Your task to perform on an android device: see creations saved in the google photos Image 0: 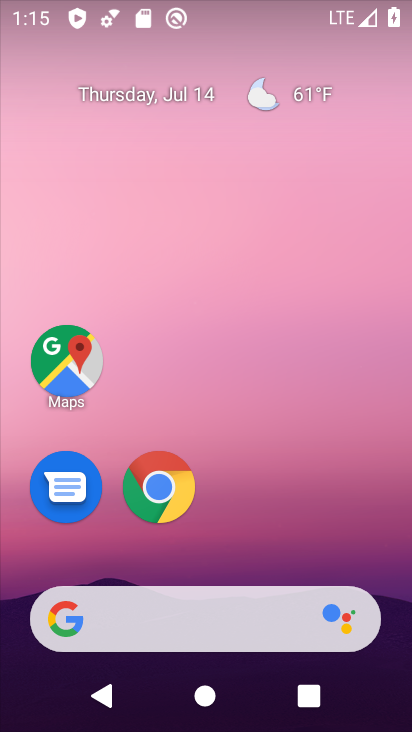
Step 0: drag from (324, 518) to (367, 173)
Your task to perform on an android device: see creations saved in the google photos Image 1: 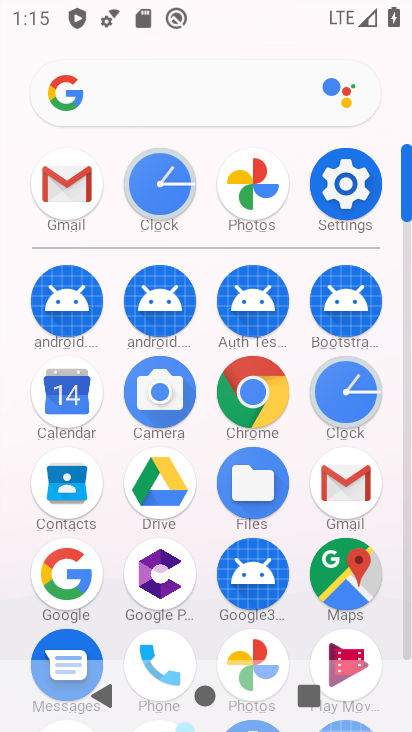
Step 1: click (269, 197)
Your task to perform on an android device: see creations saved in the google photos Image 2: 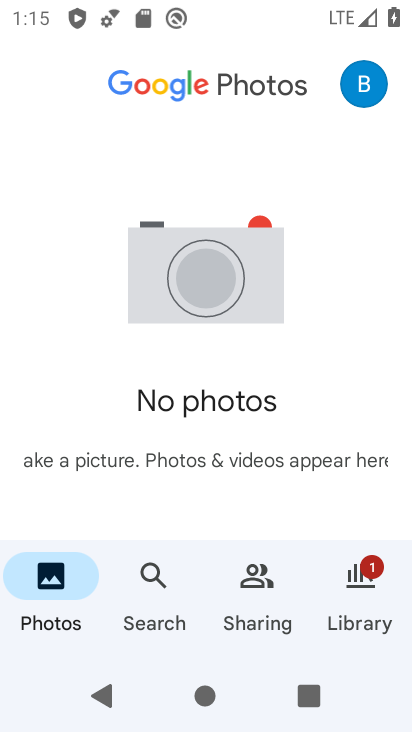
Step 2: click (152, 567)
Your task to perform on an android device: see creations saved in the google photos Image 3: 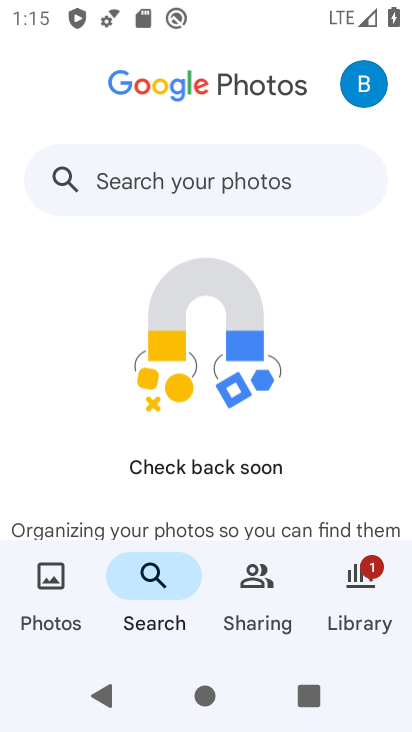
Step 3: drag from (353, 448) to (355, 339)
Your task to perform on an android device: see creations saved in the google photos Image 4: 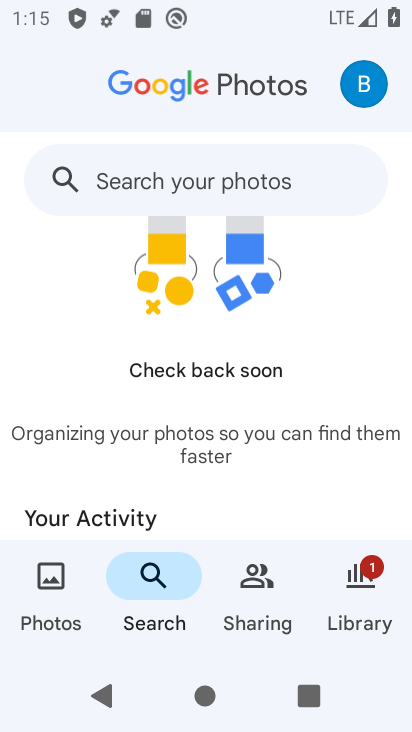
Step 4: drag from (337, 458) to (334, 324)
Your task to perform on an android device: see creations saved in the google photos Image 5: 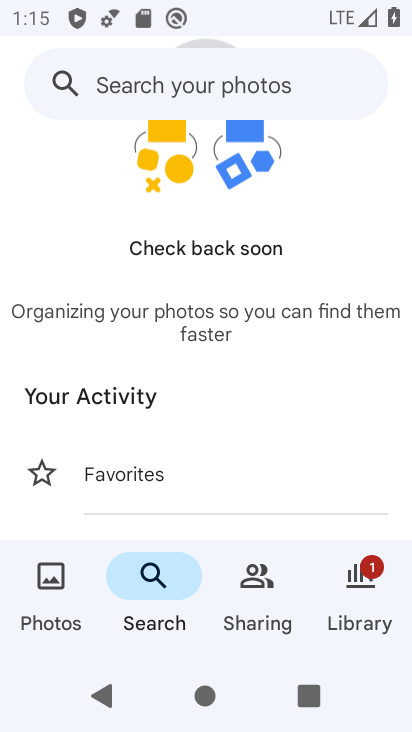
Step 5: drag from (315, 423) to (316, 328)
Your task to perform on an android device: see creations saved in the google photos Image 6: 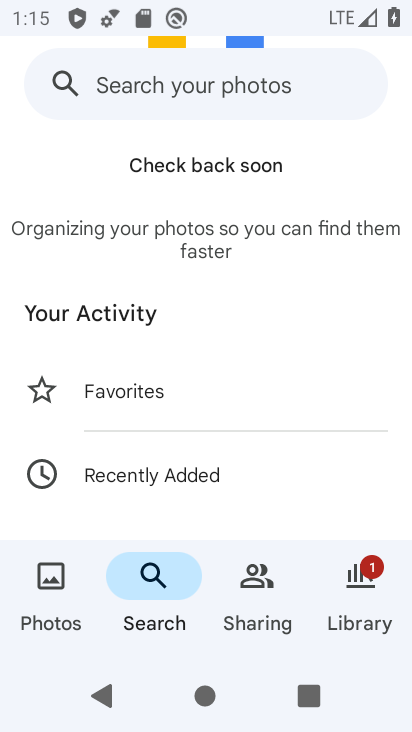
Step 6: drag from (287, 463) to (283, 319)
Your task to perform on an android device: see creations saved in the google photos Image 7: 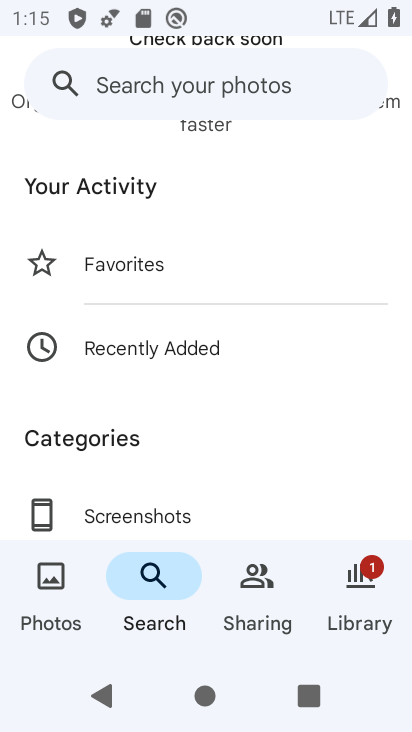
Step 7: drag from (262, 430) to (261, 308)
Your task to perform on an android device: see creations saved in the google photos Image 8: 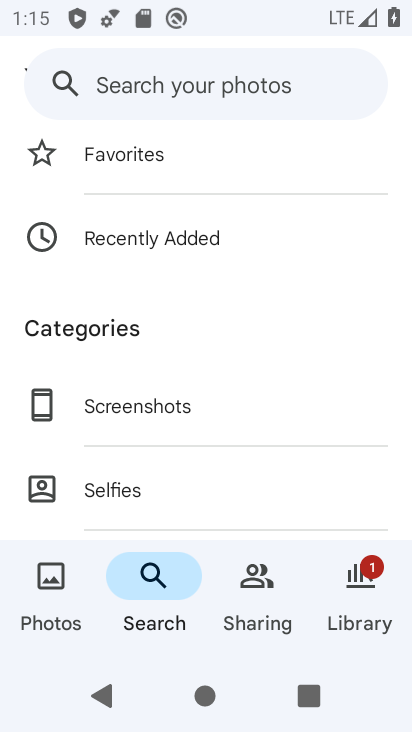
Step 8: drag from (257, 456) to (282, 295)
Your task to perform on an android device: see creations saved in the google photos Image 9: 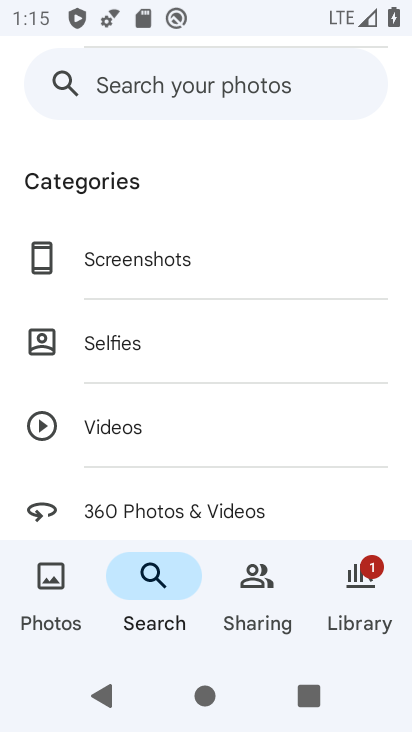
Step 9: drag from (277, 432) to (286, 325)
Your task to perform on an android device: see creations saved in the google photos Image 10: 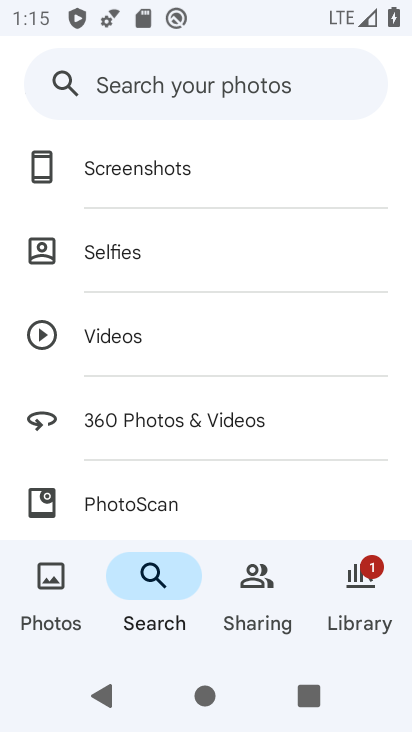
Step 10: drag from (274, 468) to (290, 331)
Your task to perform on an android device: see creations saved in the google photos Image 11: 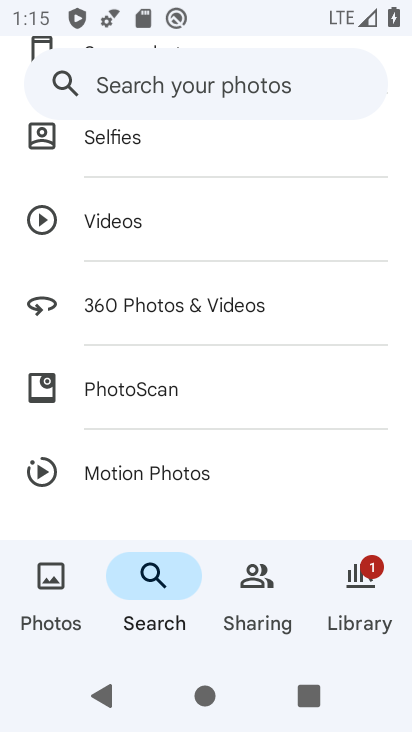
Step 11: drag from (264, 465) to (271, 312)
Your task to perform on an android device: see creations saved in the google photos Image 12: 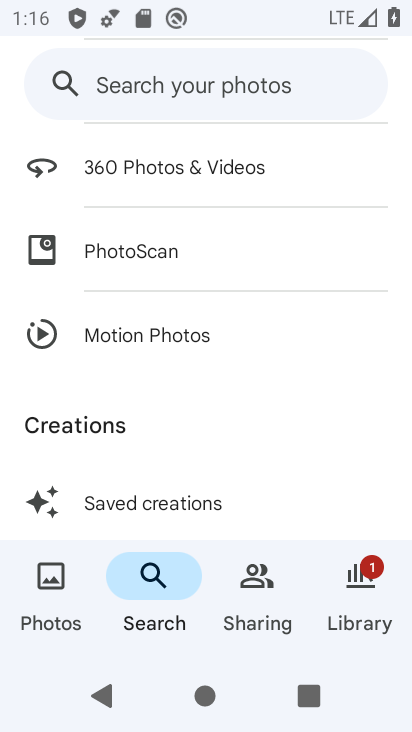
Step 12: drag from (263, 459) to (264, 343)
Your task to perform on an android device: see creations saved in the google photos Image 13: 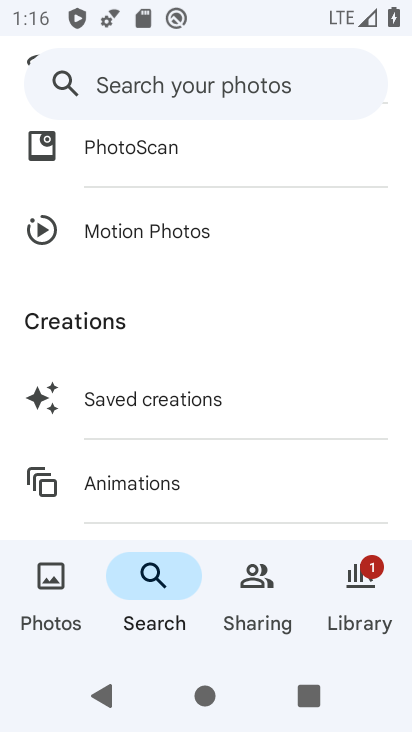
Step 13: click (215, 399)
Your task to perform on an android device: see creations saved in the google photos Image 14: 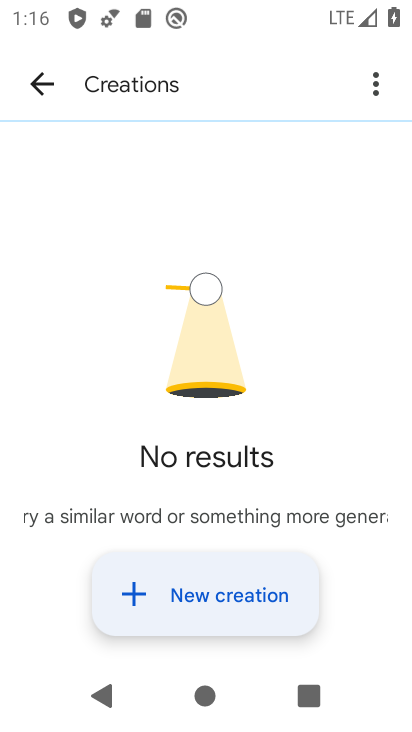
Step 14: task complete